Your task to perform on an android device: When is my next meeting? Image 0: 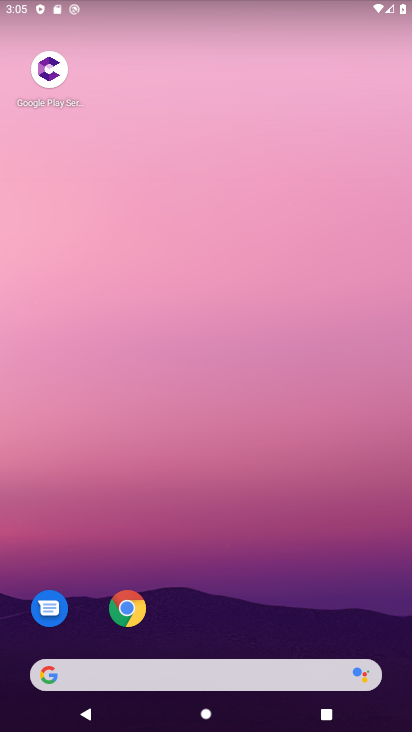
Step 0: drag from (200, 500) to (234, 255)
Your task to perform on an android device: When is my next meeting? Image 1: 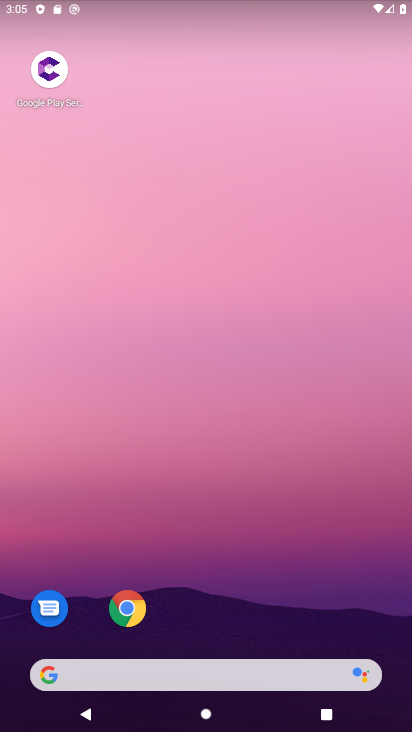
Step 1: drag from (211, 654) to (282, 205)
Your task to perform on an android device: When is my next meeting? Image 2: 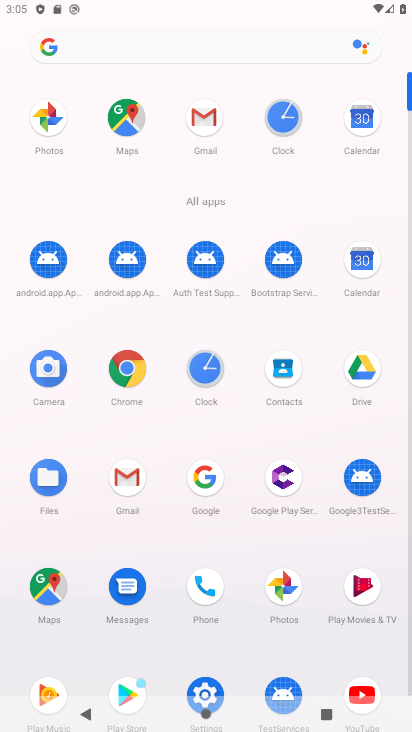
Step 2: click (361, 251)
Your task to perform on an android device: When is my next meeting? Image 3: 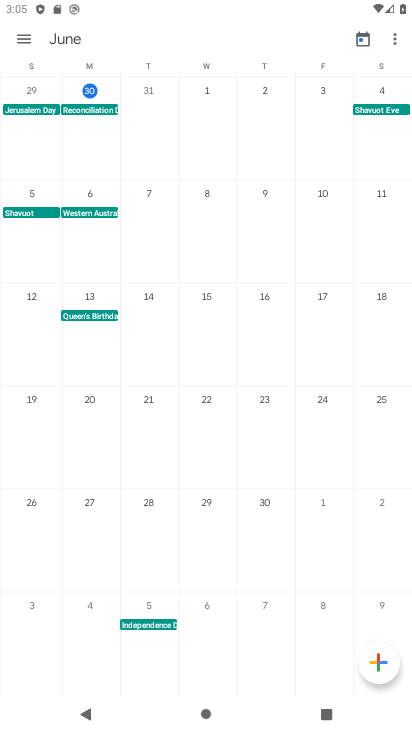
Step 3: click (141, 102)
Your task to perform on an android device: When is my next meeting? Image 4: 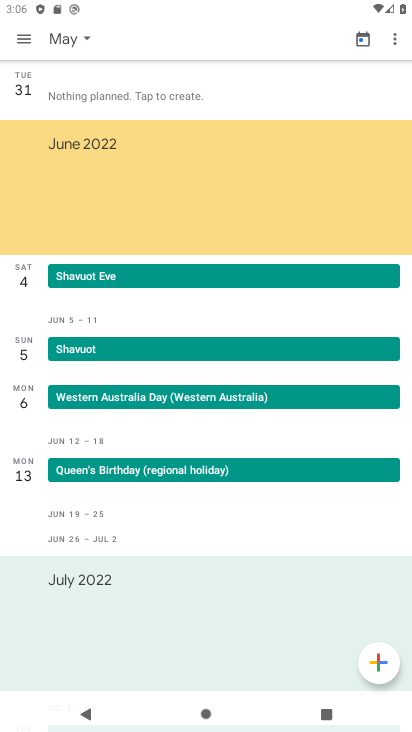
Step 4: task complete